Your task to perform on an android device: Open CNN.com Image 0: 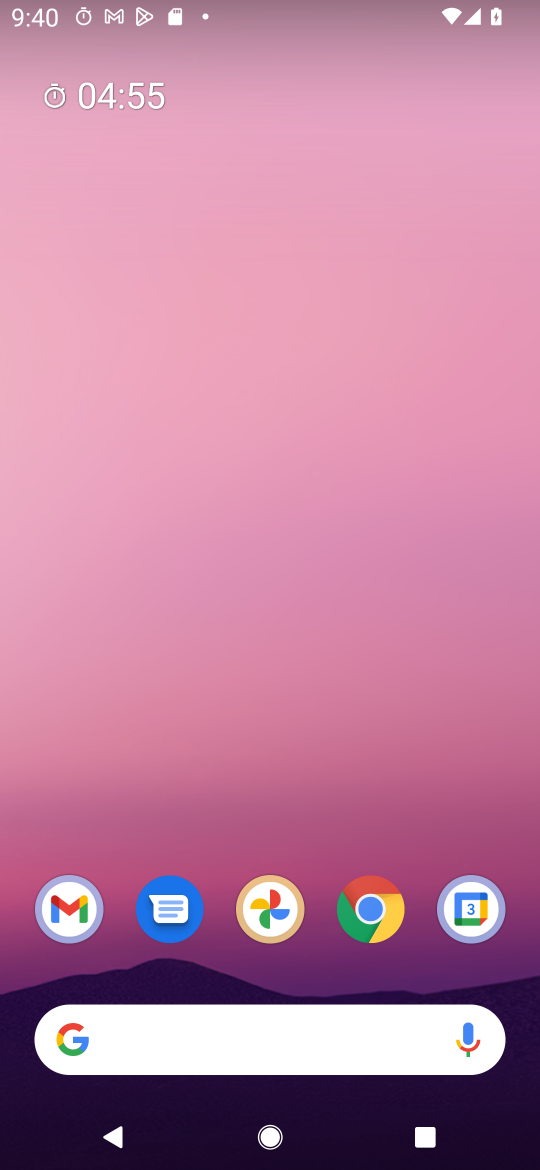
Step 0: press home button
Your task to perform on an android device: Open CNN.com Image 1: 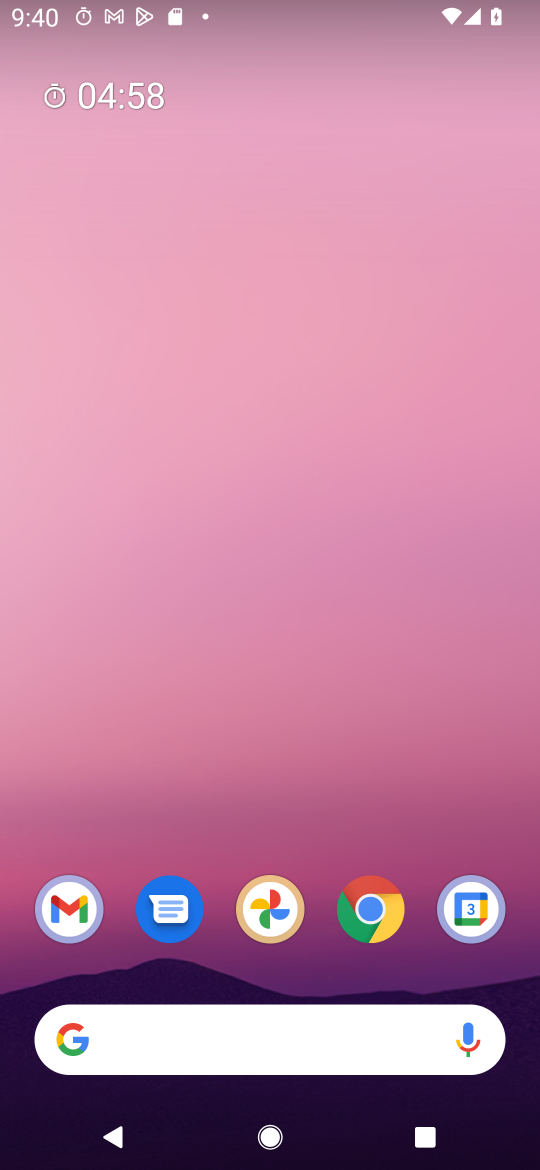
Step 1: drag from (411, 834) to (421, 284)
Your task to perform on an android device: Open CNN.com Image 2: 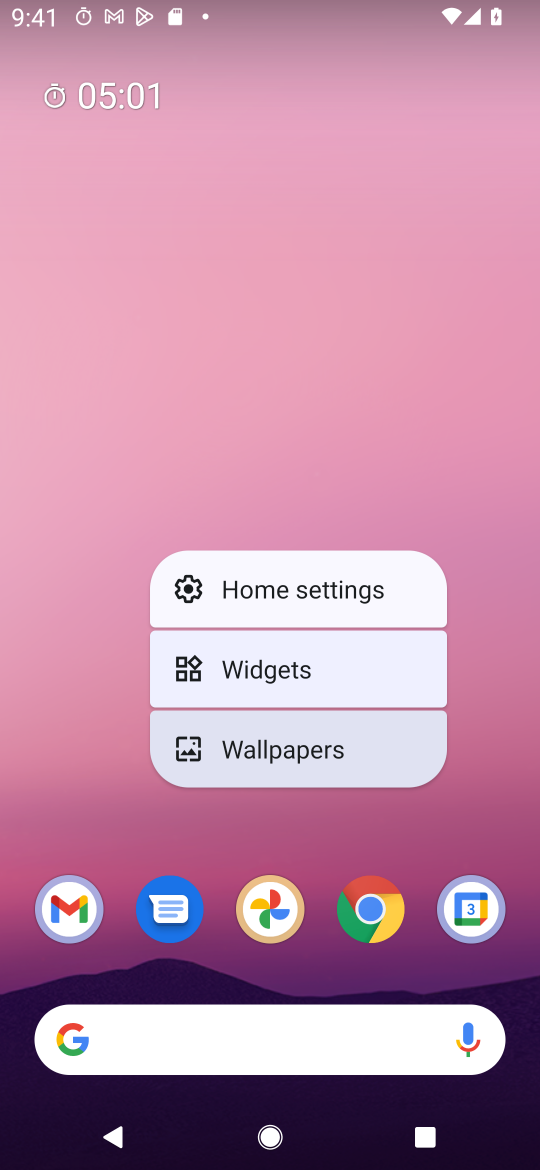
Step 2: click (486, 701)
Your task to perform on an android device: Open CNN.com Image 3: 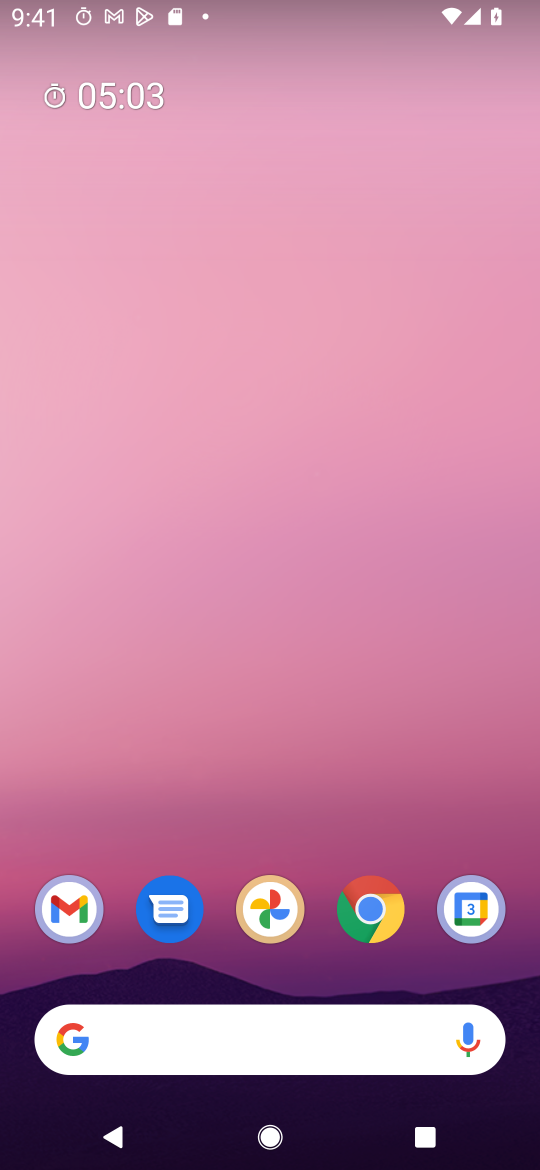
Step 3: drag from (367, 813) to (399, 162)
Your task to perform on an android device: Open CNN.com Image 4: 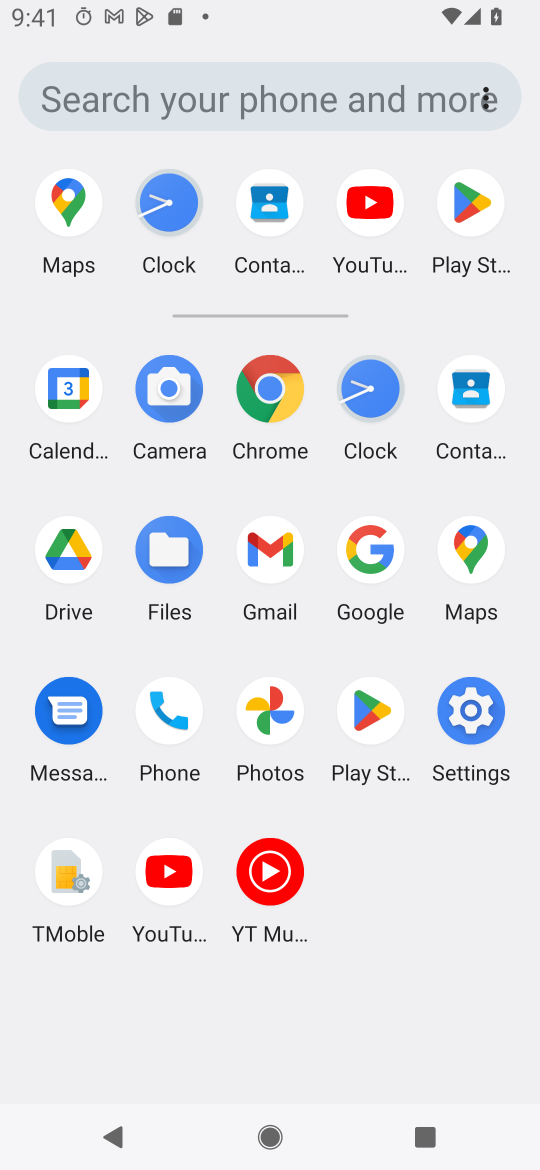
Step 4: click (274, 388)
Your task to perform on an android device: Open CNN.com Image 5: 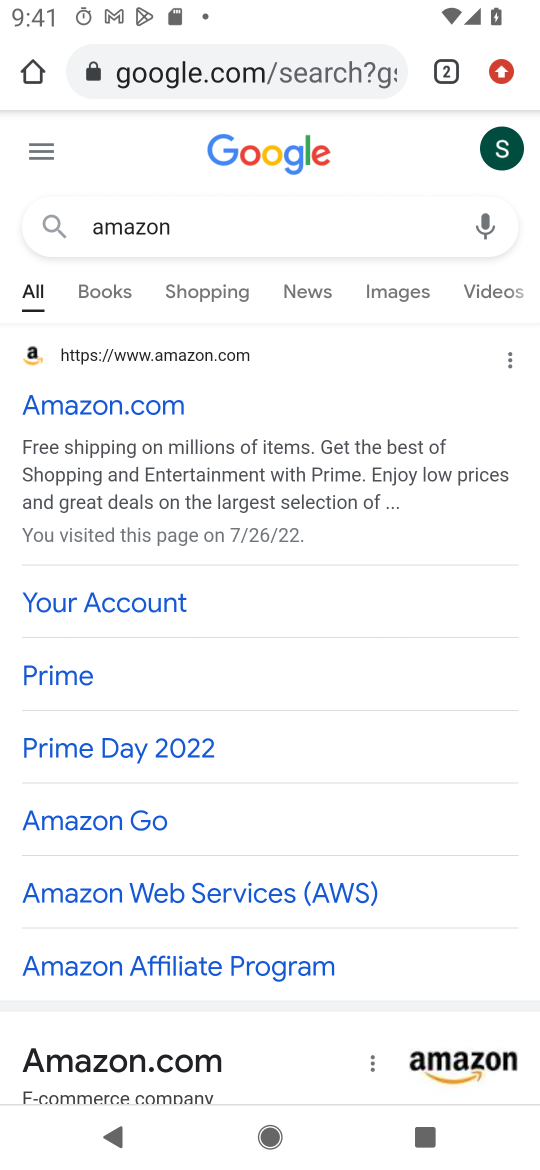
Step 5: click (321, 64)
Your task to perform on an android device: Open CNN.com Image 6: 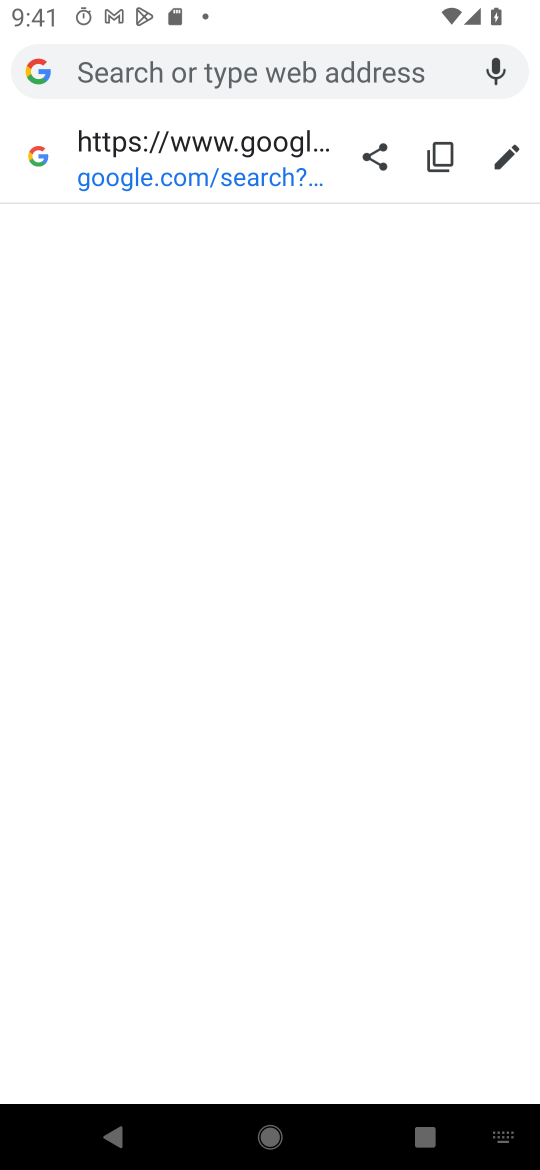
Step 6: type "cnn.com"
Your task to perform on an android device: Open CNN.com Image 7: 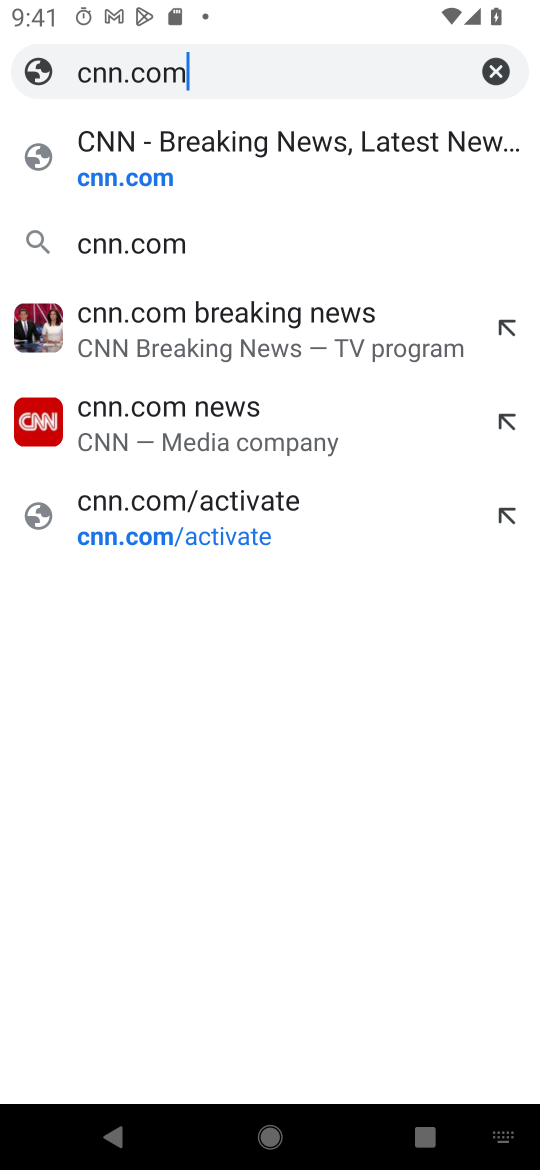
Step 7: click (174, 160)
Your task to perform on an android device: Open CNN.com Image 8: 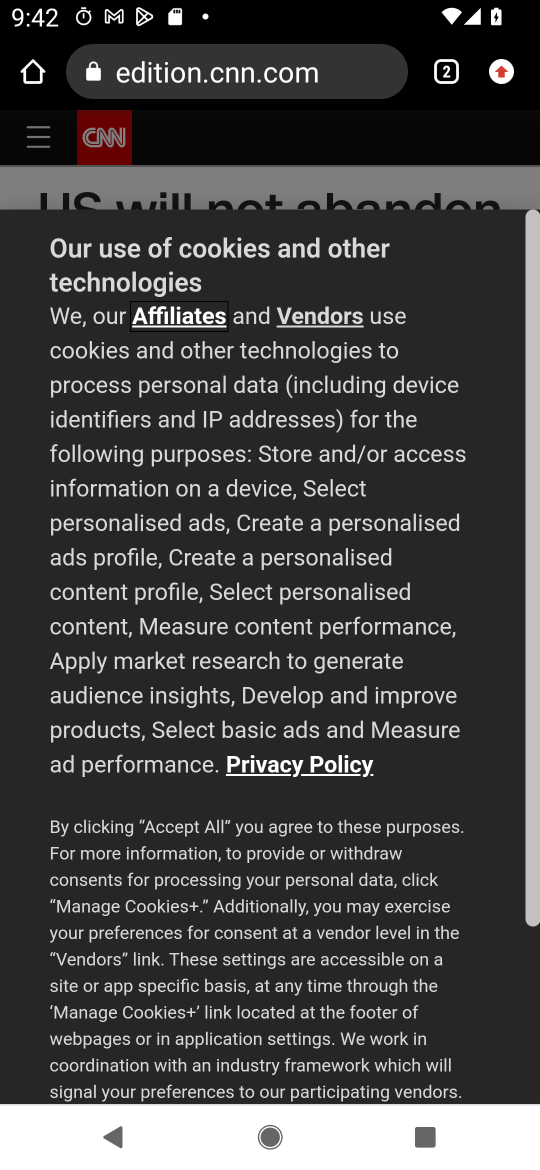
Step 8: task complete